Your task to perform on an android device: turn off translation in the chrome app Image 0: 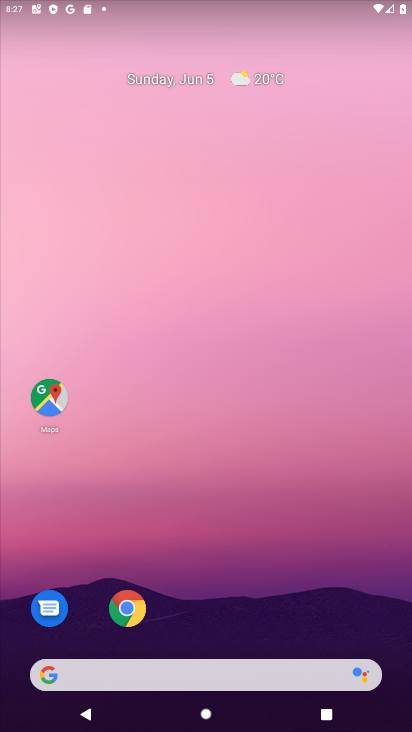
Step 0: press home button
Your task to perform on an android device: turn off translation in the chrome app Image 1: 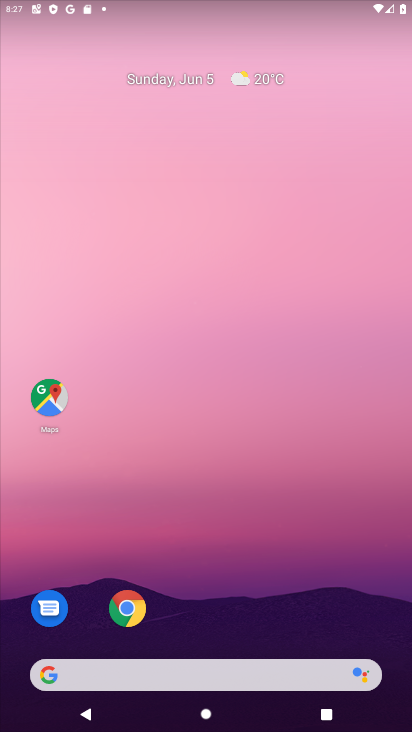
Step 1: click (127, 601)
Your task to perform on an android device: turn off translation in the chrome app Image 2: 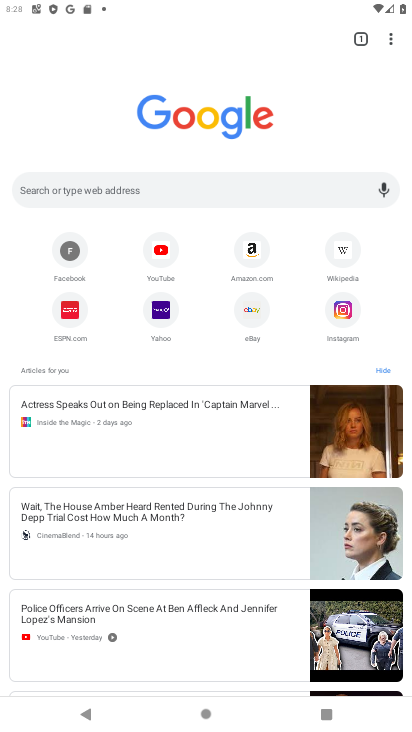
Step 2: click (388, 40)
Your task to perform on an android device: turn off translation in the chrome app Image 3: 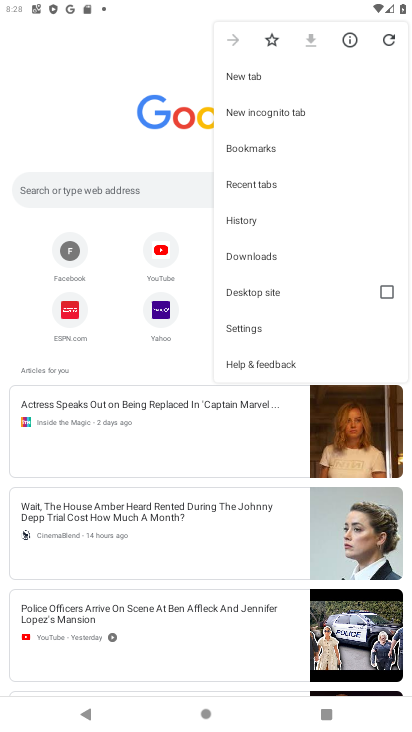
Step 3: click (255, 323)
Your task to perform on an android device: turn off translation in the chrome app Image 4: 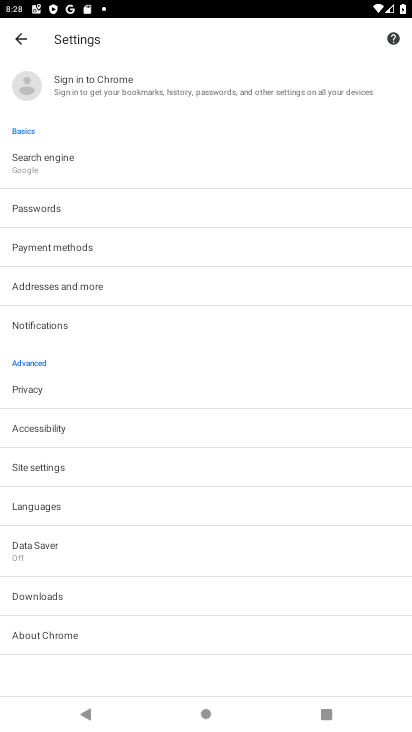
Step 4: click (48, 514)
Your task to perform on an android device: turn off translation in the chrome app Image 5: 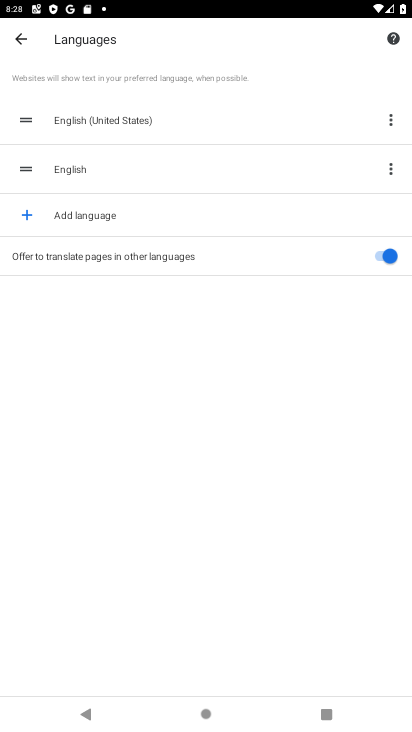
Step 5: click (395, 261)
Your task to perform on an android device: turn off translation in the chrome app Image 6: 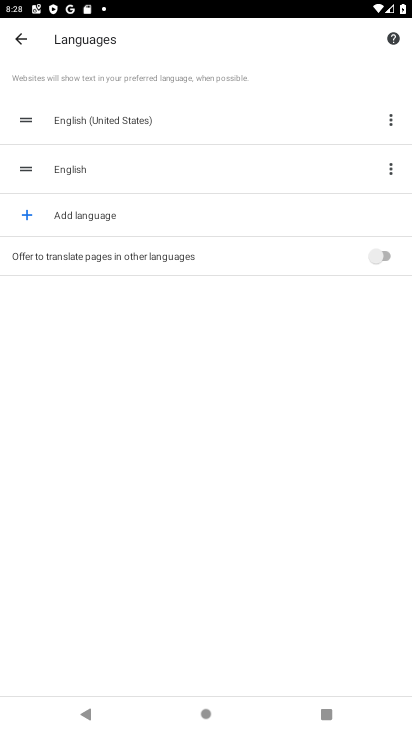
Step 6: task complete